Your task to perform on an android device: Go to sound settings Image 0: 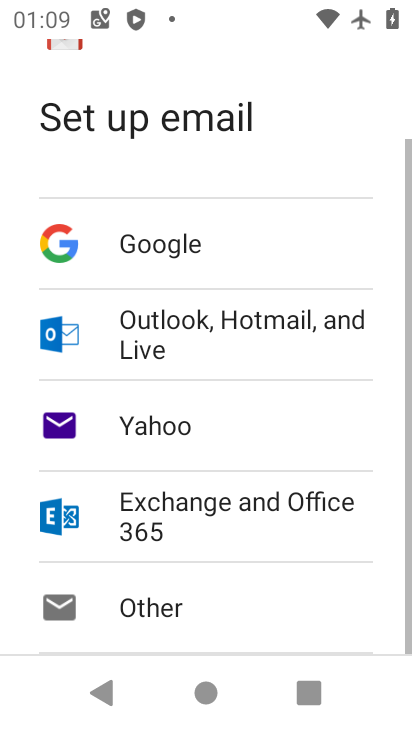
Step 0: drag from (230, 585) to (311, 215)
Your task to perform on an android device: Go to sound settings Image 1: 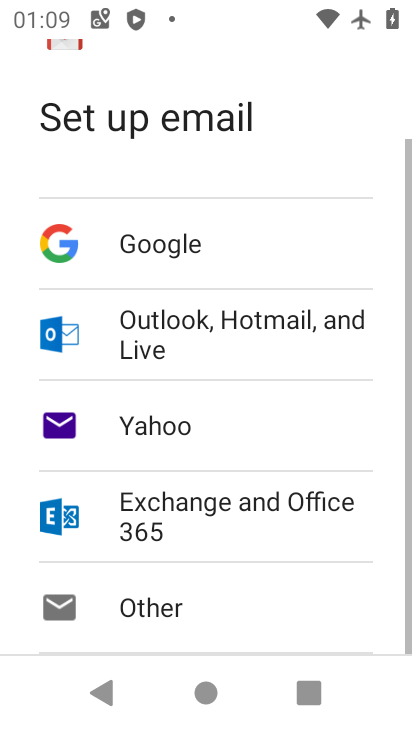
Step 1: press home button
Your task to perform on an android device: Go to sound settings Image 2: 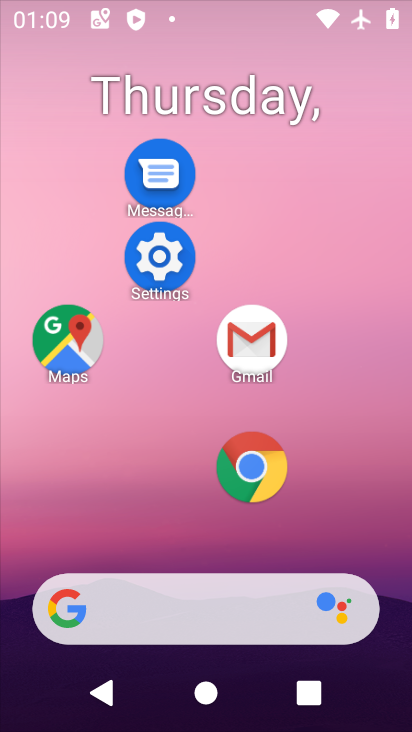
Step 2: drag from (202, 572) to (276, 218)
Your task to perform on an android device: Go to sound settings Image 3: 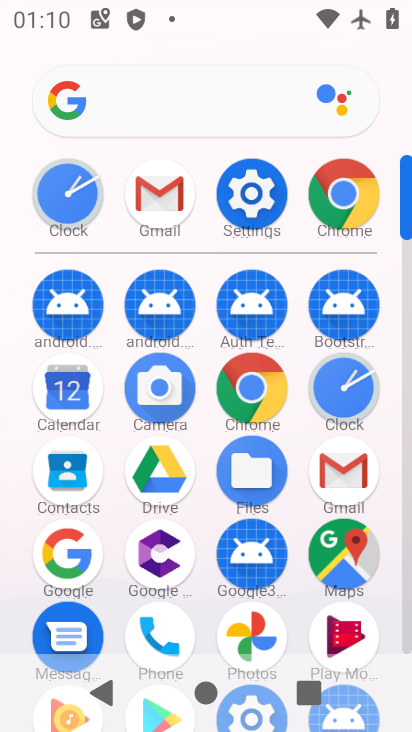
Step 3: click (249, 173)
Your task to perform on an android device: Go to sound settings Image 4: 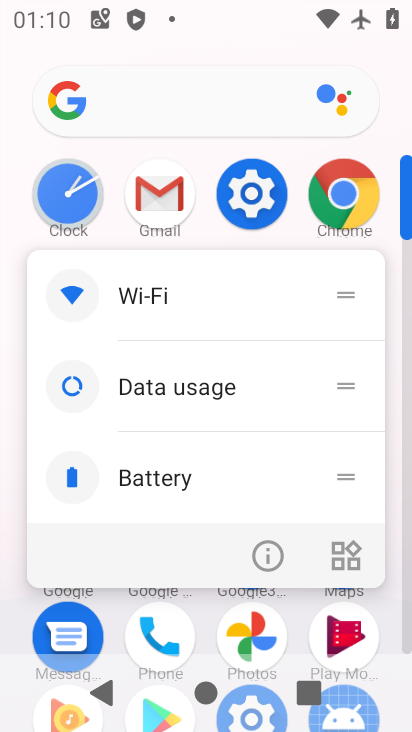
Step 4: click (272, 549)
Your task to perform on an android device: Go to sound settings Image 5: 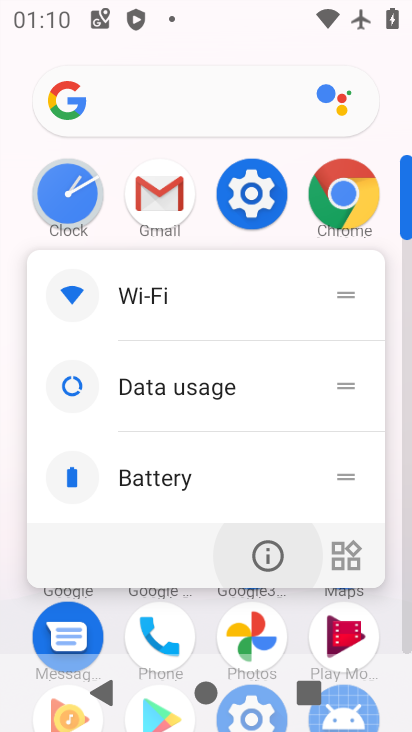
Step 5: click (272, 549)
Your task to perform on an android device: Go to sound settings Image 6: 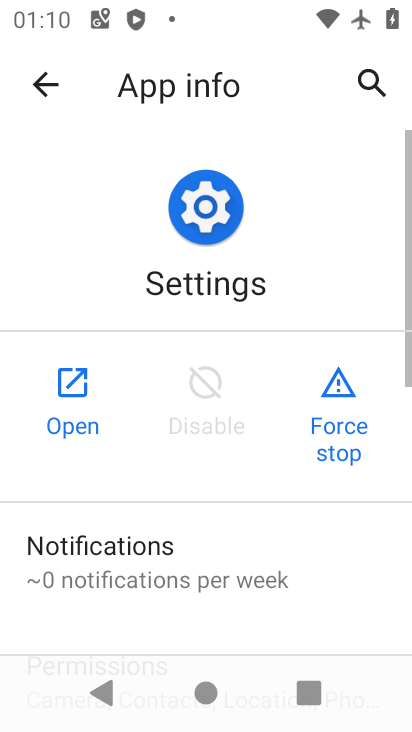
Step 6: click (75, 418)
Your task to perform on an android device: Go to sound settings Image 7: 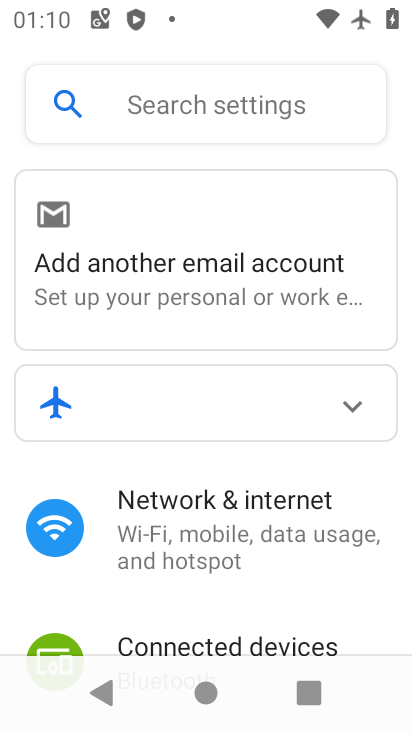
Step 7: drag from (169, 531) to (307, 113)
Your task to perform on an android device: Go to sound settings Image 8: 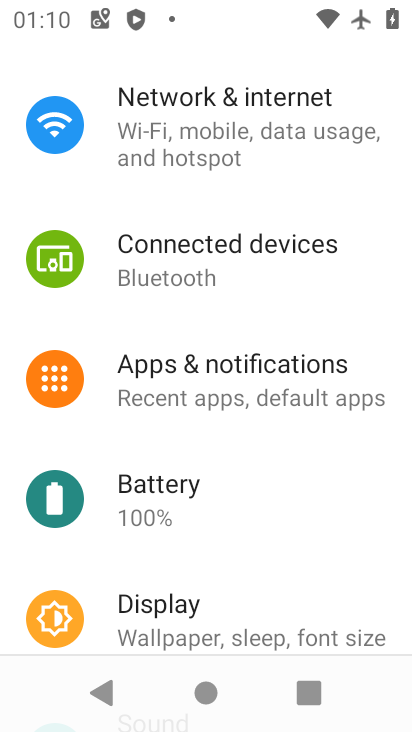
Step 8: drag from (207, 571) to (283, 243)
Your task to perform on an android device: Go to sound settings Image 9: 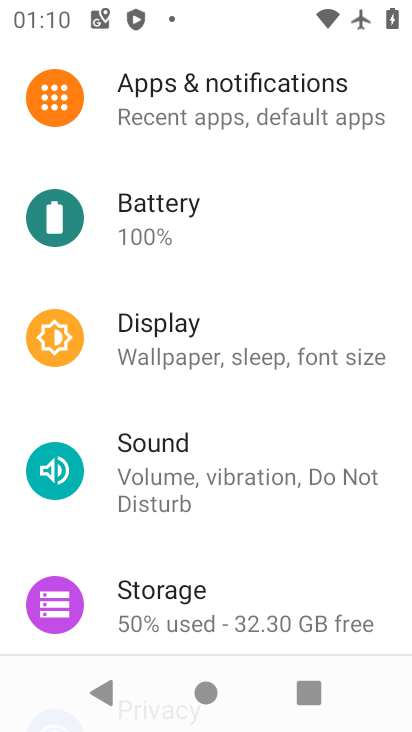
Step 9: click (215, 511)
Your task to perform on an android device: Go to sound settings Image 10: 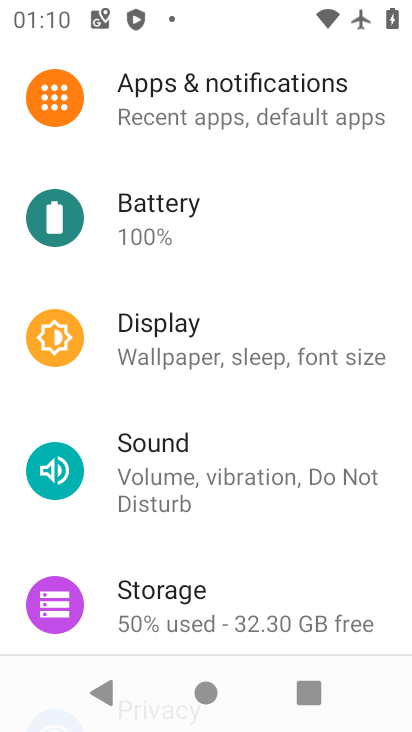
Step 10: click (215, 511)
Your task to perform on an android device: Go to sound settings Image 11: 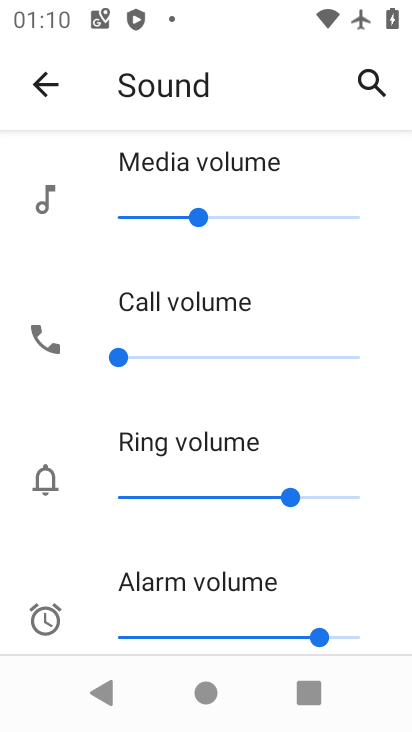
Step 11: task complete